Your task to perform on an android device: Open calendar and show me the third week of next month Image 0: 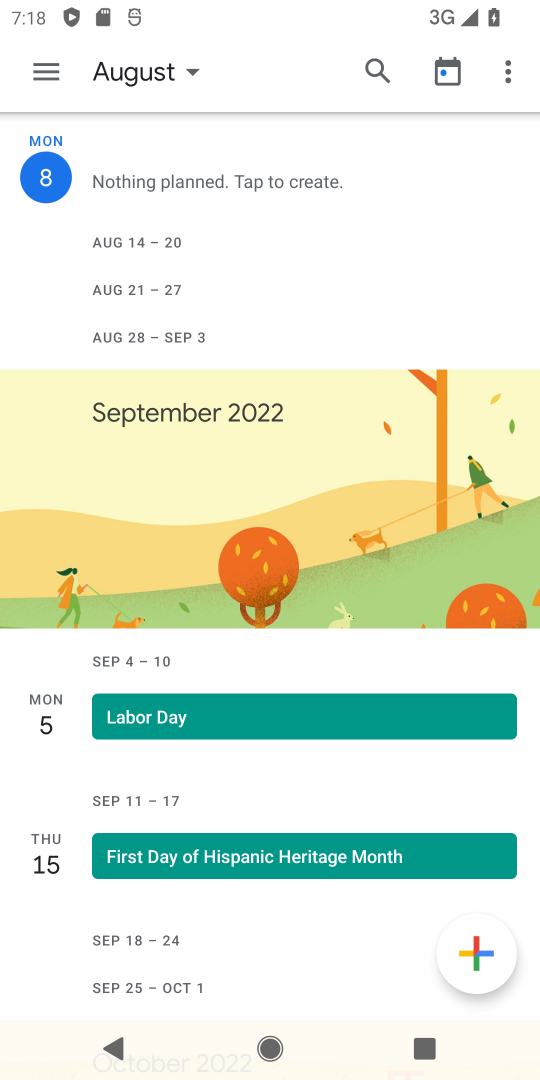
Step 0: click (28, 71)
Your task to perform on an android device: Open calendar and show me the third week of next month Image 1: 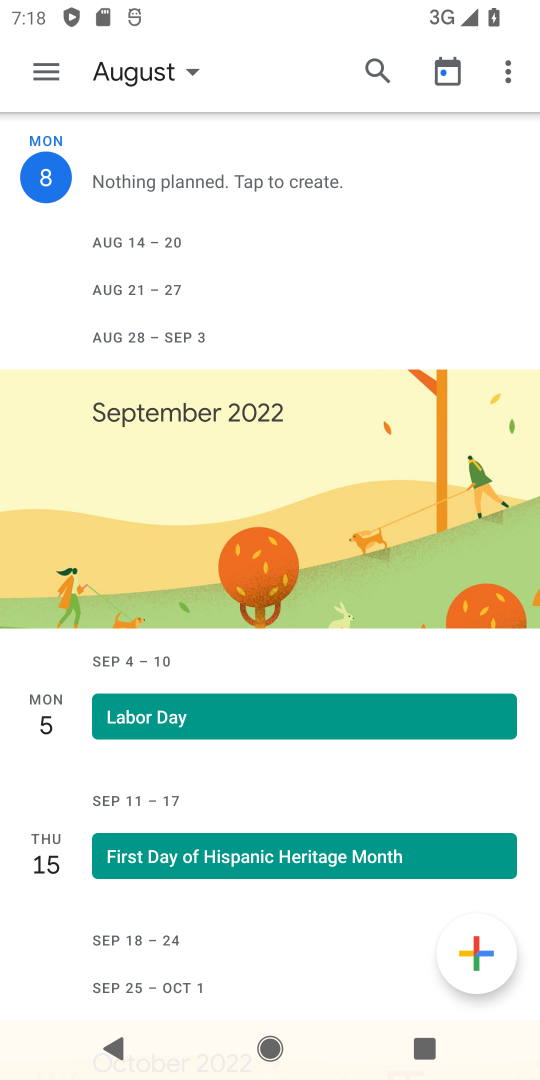
Step 1: click (43, 57)
Your task to perform on an android device: Open calendar and show me the third week of next month Image 2: 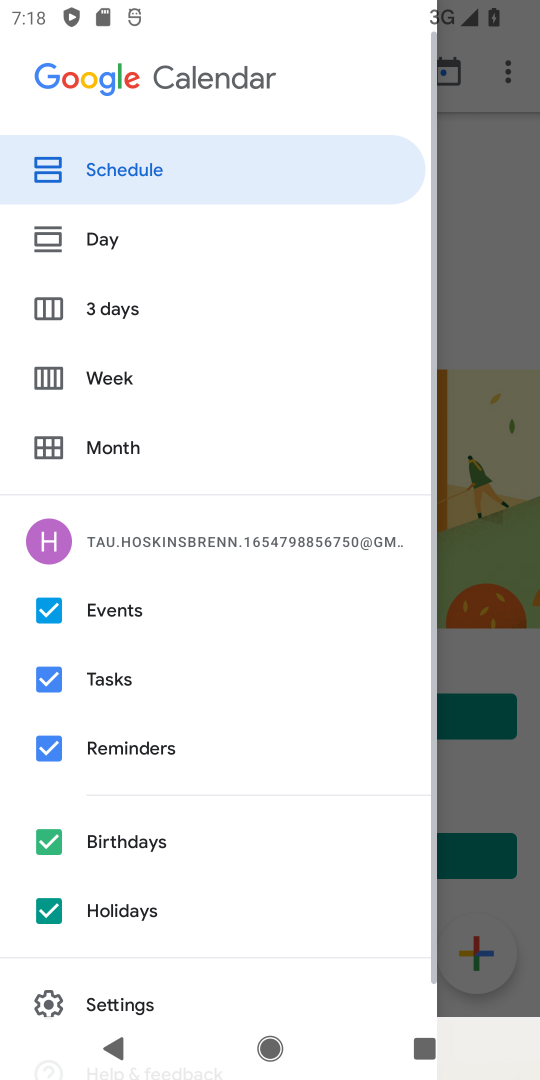
Step 2: click (117, 398)
Your task to perform on an android device: Open calendar and show me the third week of next month Image 3: 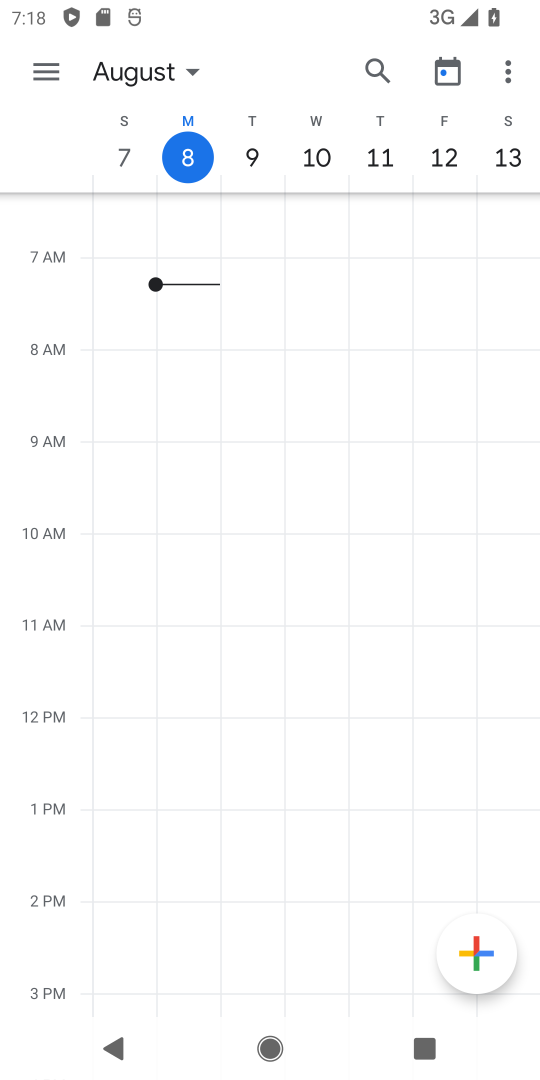
Step 3: task complete